Your task to perform on an android device: change the clock style Image 0: 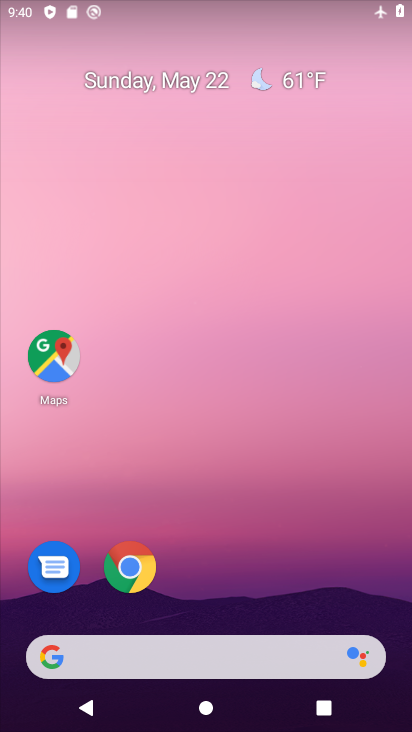
Step 0: drag from (228, 626) to (203, 67)
Your task to perform on an android device: change the clock style Image 1: 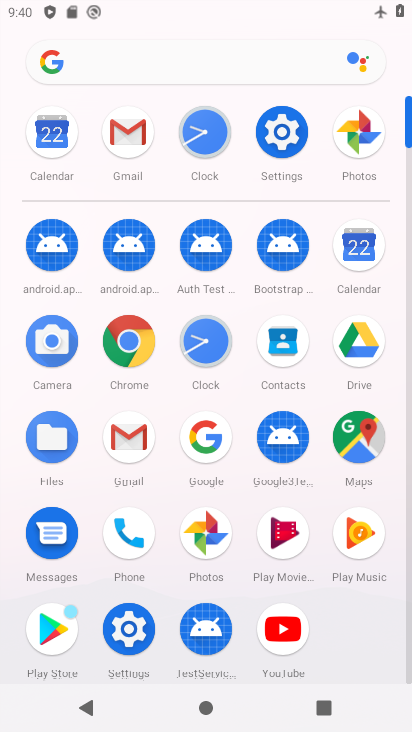
Step 1: click (202, 357)
Your task to perform on an android device: change the clock style Image 2: 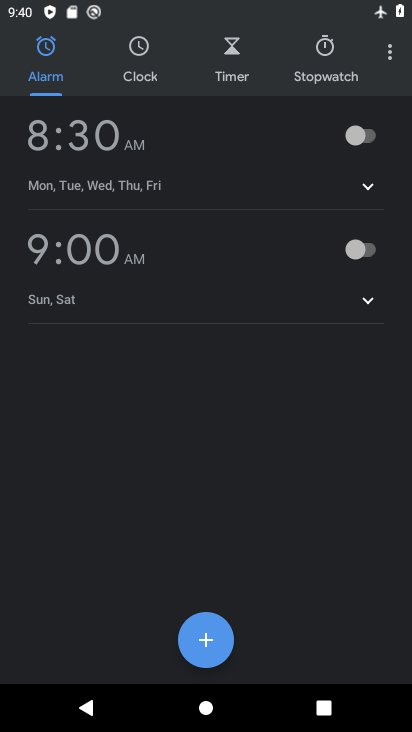
Step 2: click (392, 59)
Your task to perform on an android device: change the clock style Image 3: 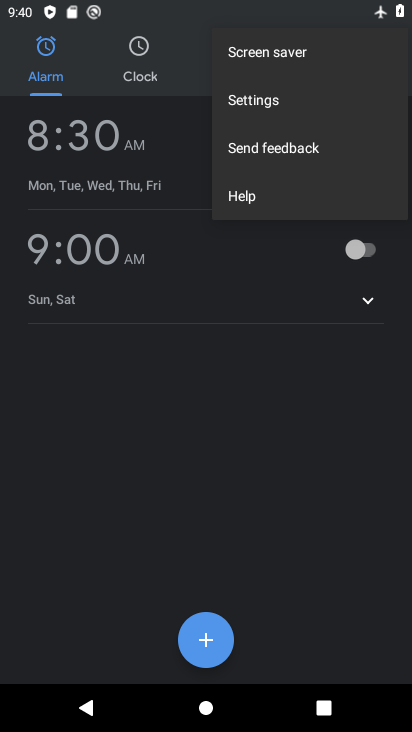
Step 3: click (249, 100)
Your task to perform on an android device: change the clock style Image 4: 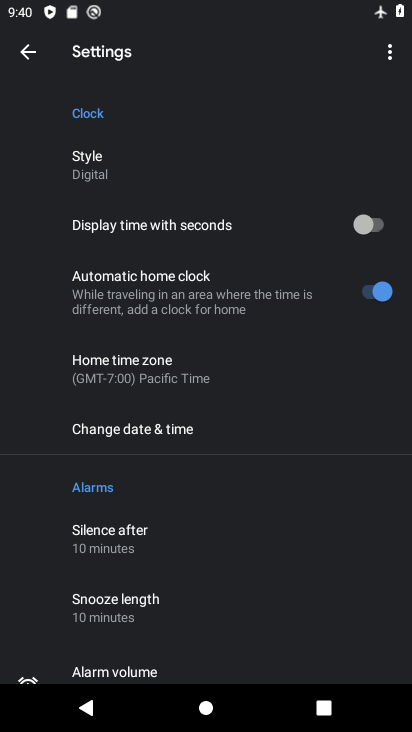
Step 4: click (117, 163)
Your task to perform on an android device: change the clock style Image 5: 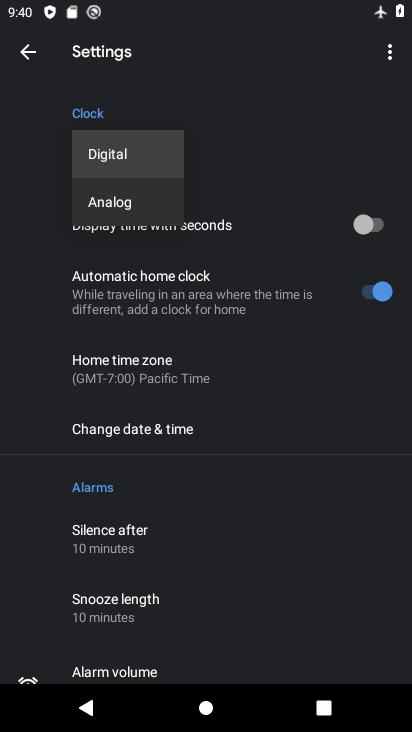
Step 5: click (149, 197)
Your task to perform on an android device: change the clock style Image 6: 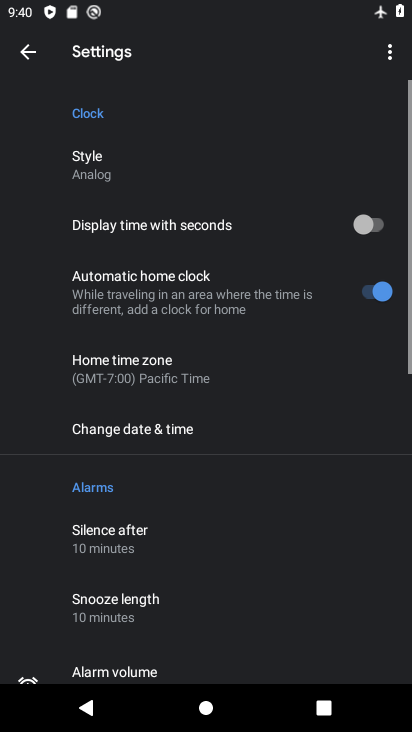
Step 6: task complete